Your task to perform on an android device: open chrome and create a bookmark for the current page Image 0: 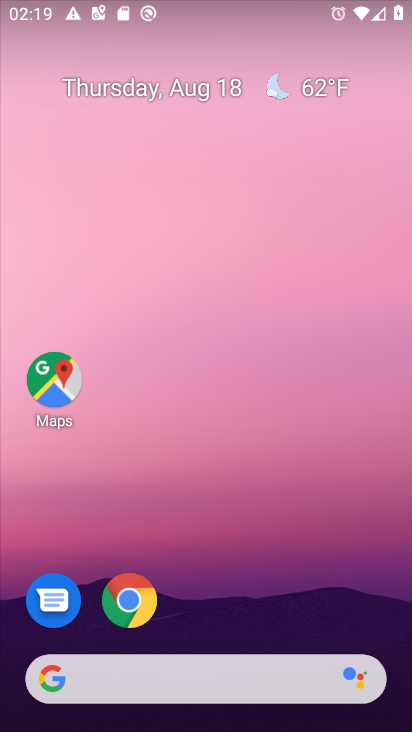
Step 0: press home button
Your task to perform on an android device: open chrome and create a bookmark for the current page Image 1: 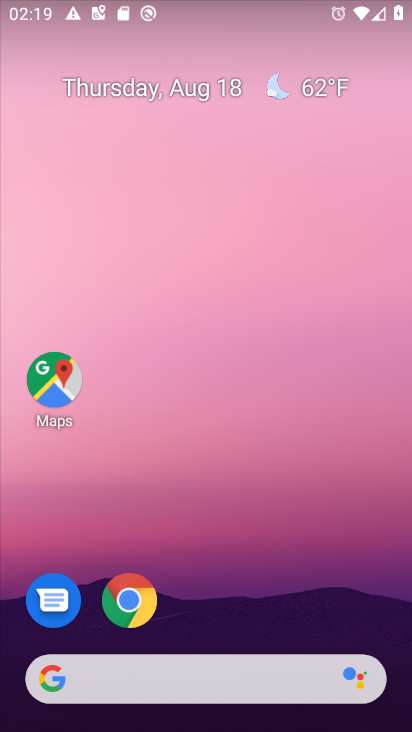
Step 1: press home button
Your task to perform on an android device: open chrome and create a bookmark for the current page Image 2: 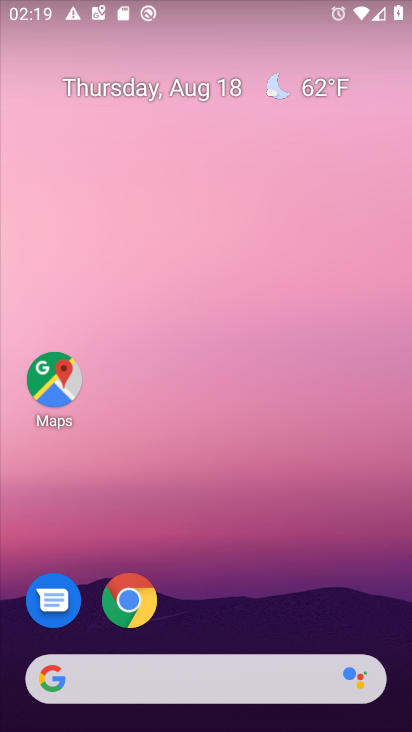
Step 2: click (128, 589)
Your task to perform on an android device: open chrome and create a bookmark for the current page Image 3: 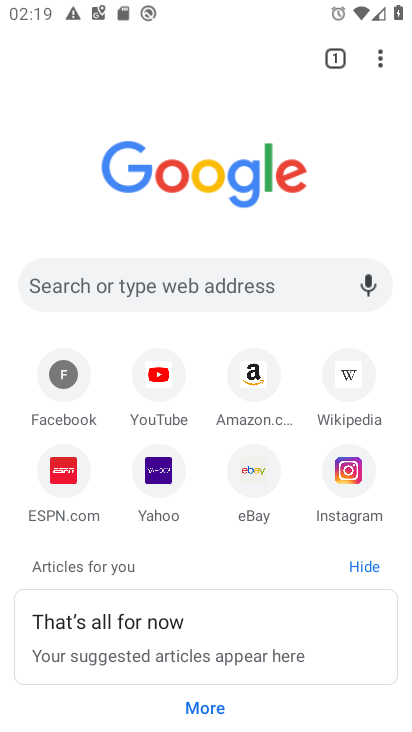
Step 3: click (380, 58)
Your task to perform on an android device: open chrome and create a bookmark for the current page Image 4: 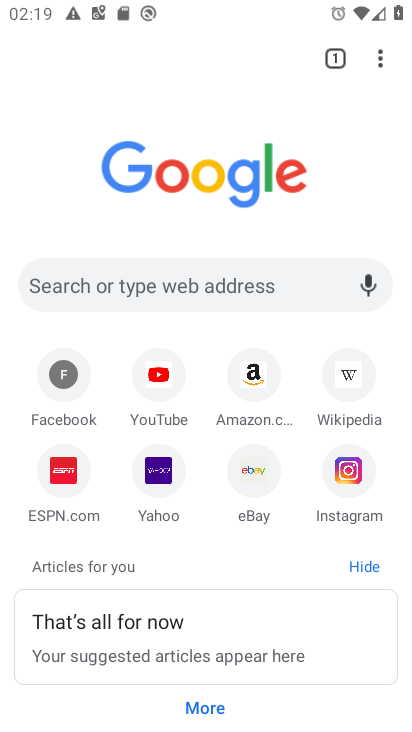
Step 4: task complete